Your task to perform on an android device: Do I have any events tomorrow? Image 0: 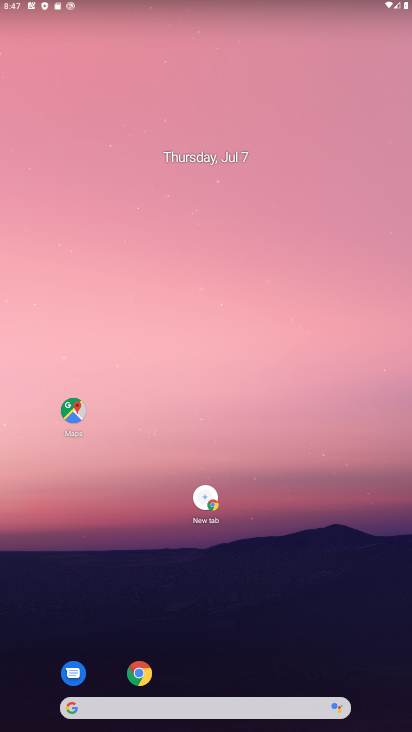
Step 0: press home button
Your task to perform on an android device: Do I have any events tomorrow? Image 1: 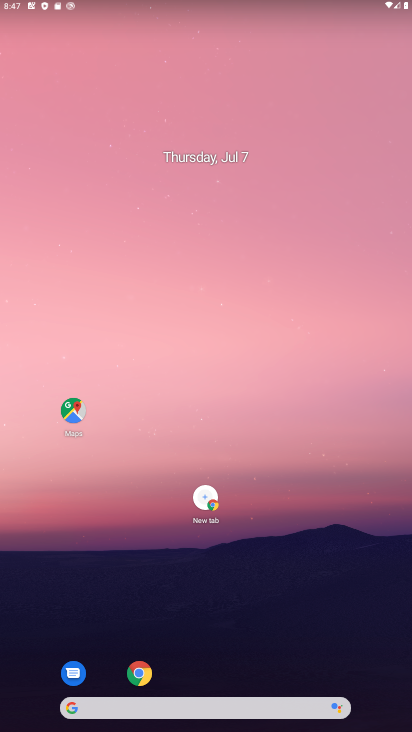
Step 1: drag from (253, 634) to (191, 96)
Your task to perform on an android device: Do I have any events tomorrow? Image 2: 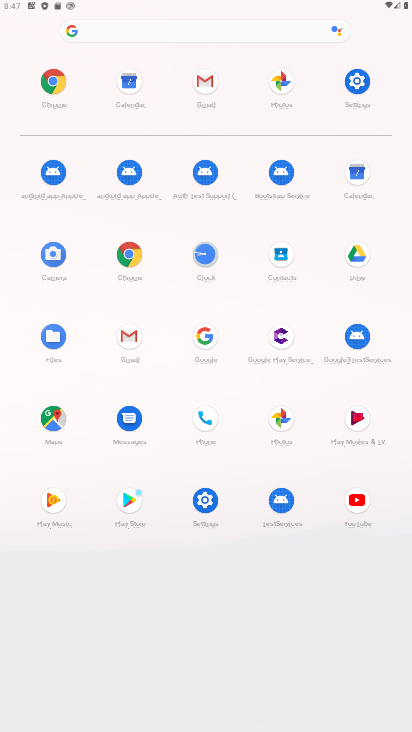
Step 2: click (363, 168)
Your task to perform on an android device: Do I have any events tomorrow? Image 3: 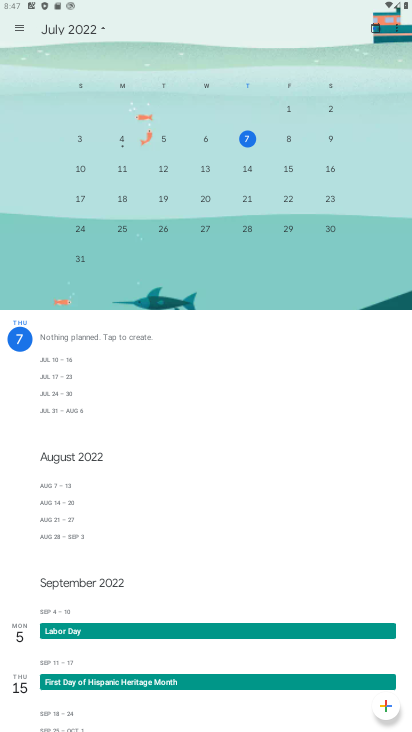
Step 3: click (285, 141)
Your task to perform on an android device: Do I have any events tomorrow? Image 4: 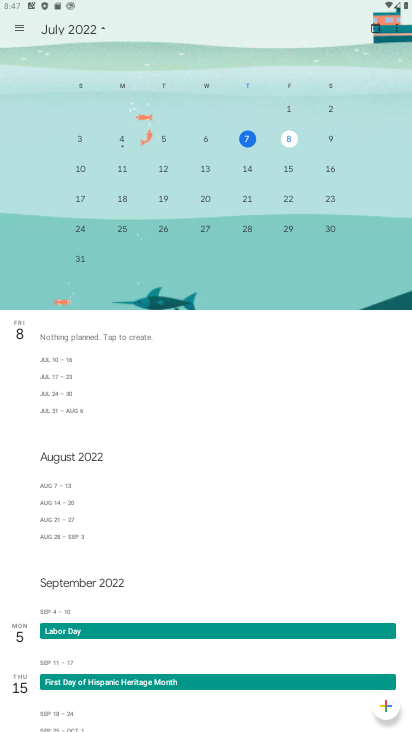
Step 4: task complete